Your task to perform on an android device: check google app version Image 0: 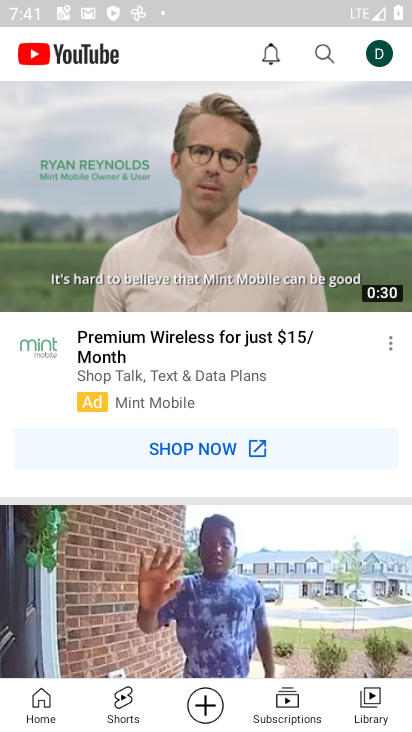
Step 0: press home button
Your task to perform on an android device: check google app version Image 1: 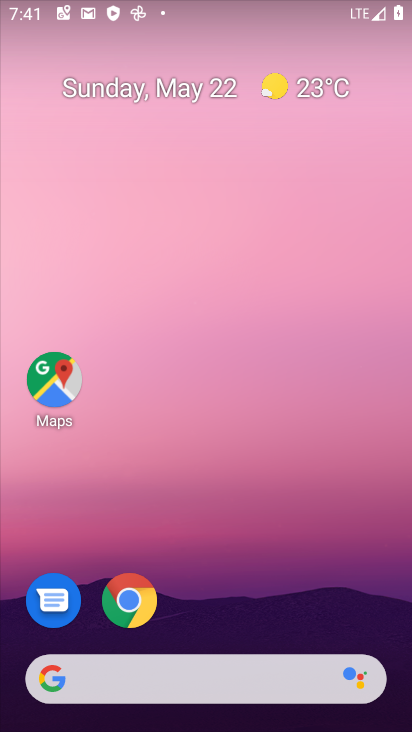
Step 1: drag from (362, 624) to (234, 59)
Your task to perform on an android device: check google app version Image 2: 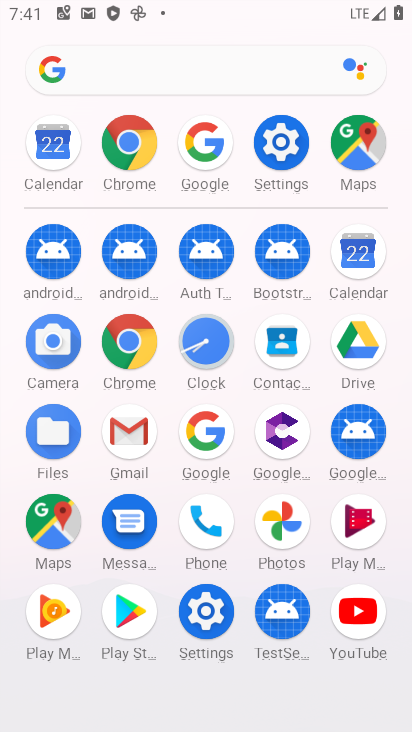
Step 2: click (190, 437)
Your task to perform on an android device: check google app version Image 3: 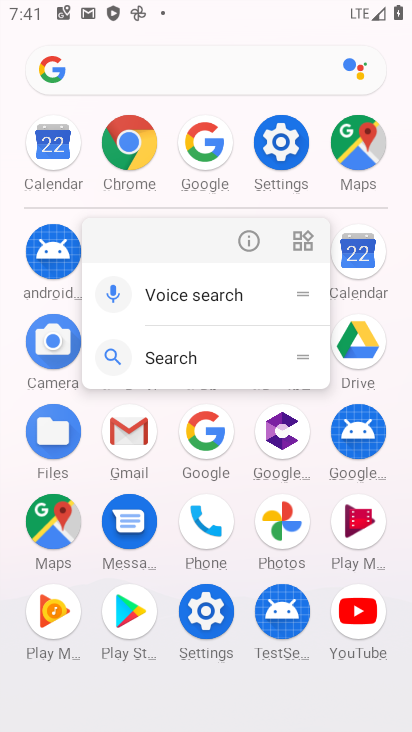
Step 3: click (243, 239)
Your task to perform on an android device: check google app version Image 4: 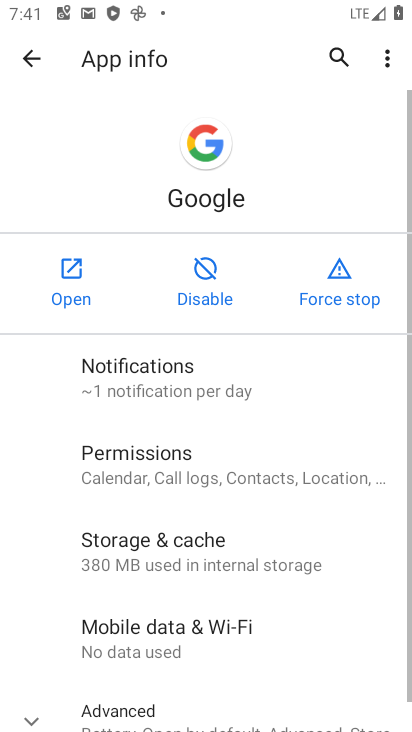
Step 4: drag from (260, 651) to (277, 4)
Your task to perform on an android device: check google app version Image 5: 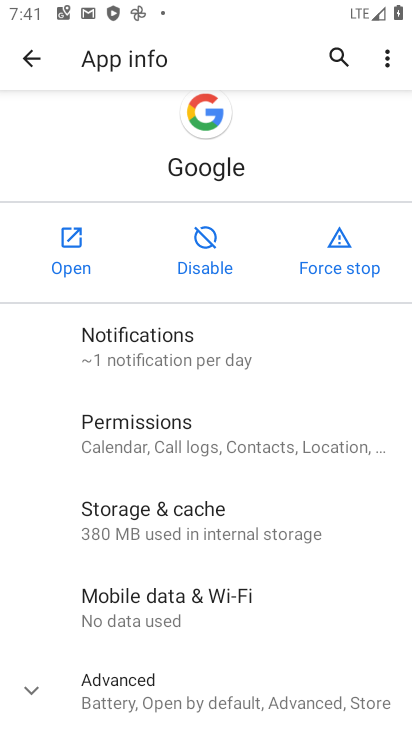
Step 5: click (150, 714)
Your task to perform on an android device: check google app version Image 6: 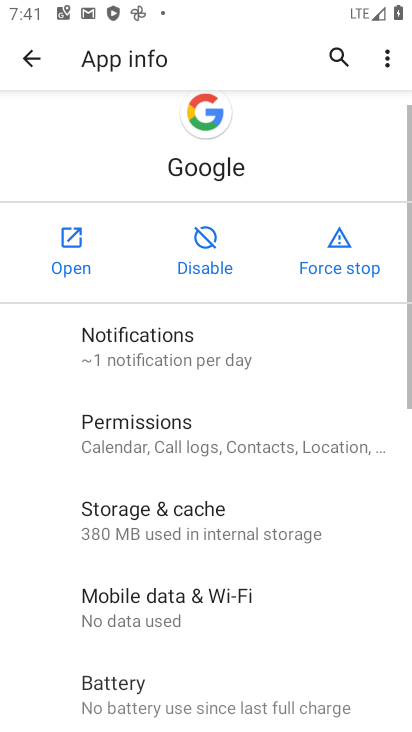
Step 6: task complete